Your task to perform on an android device: turn pop-ups on in chrome Image 0: 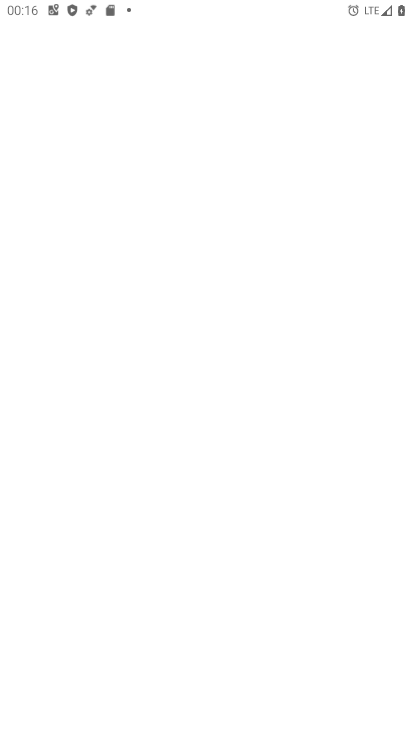
Step 0: press home button
Your task to perform on an android device: turn pop-ups on in chrome Image 1: 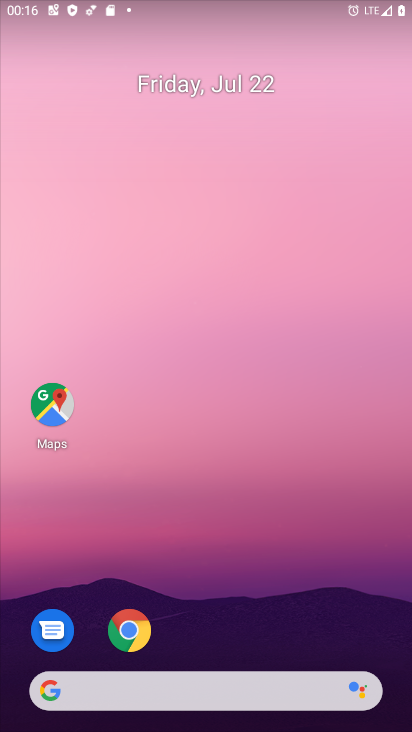
Step 1: click (134, 648)
Your task to perform on an android device: turn pop-ups on in chrome Image 2: 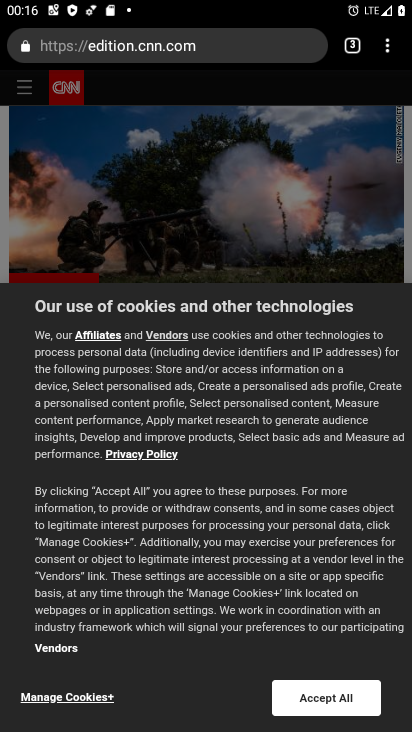
Step 2: click (385, 49)
Your task to perform on an android device: turn pop-ups on in chrome Image 3: 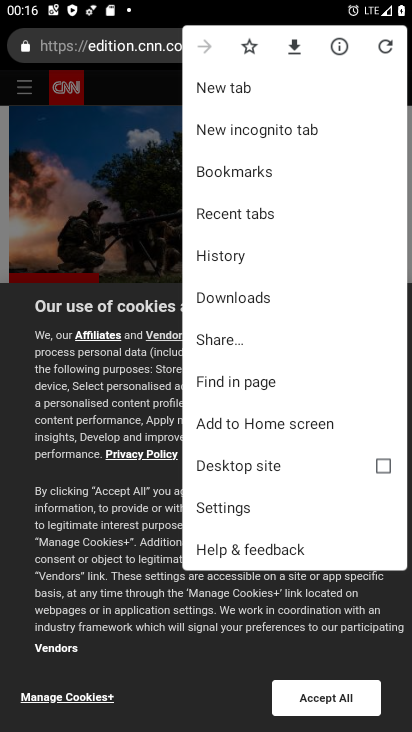
Step 3: click (229, 512)
Your task to perform on an android device: turn pop-ups on in chrome Image 4: 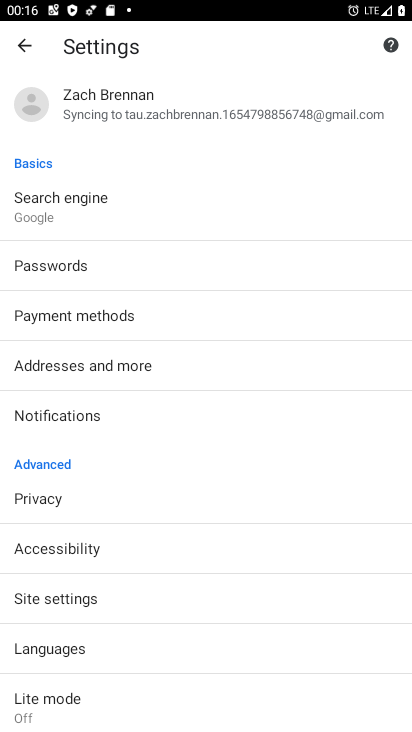
Step 4: drag from (220, 497) to (203, 276)
Your task to perform on an android device: turn pop-ups on in chrome Image 5: 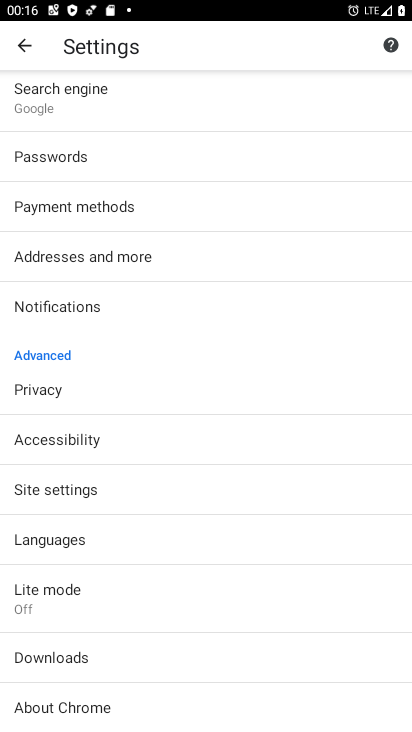
Step 5: click (44, 492)
Your task to perform on an android device: turn pop-ups on in chrome Image 6: 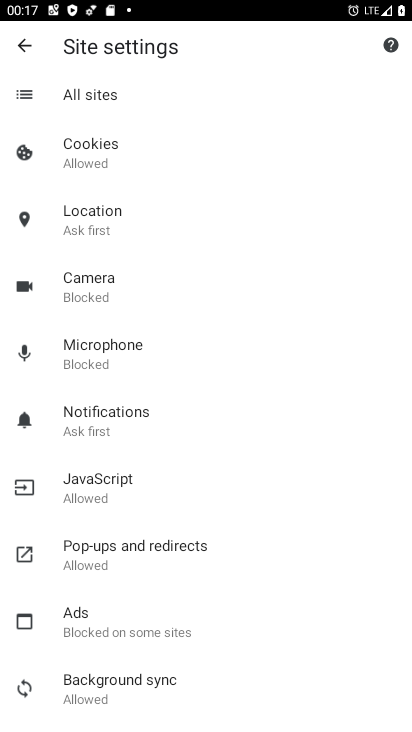
Step 6: click (83, 553)
Your task to perform on an android device: turn pop-ups on in chrome Image 7: 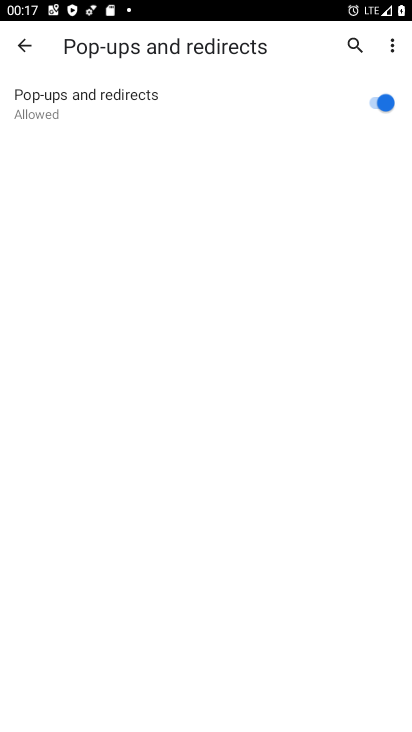
Step 7: task complete